Your task to perform on an android device: change your default location settings in chrome Image 0: 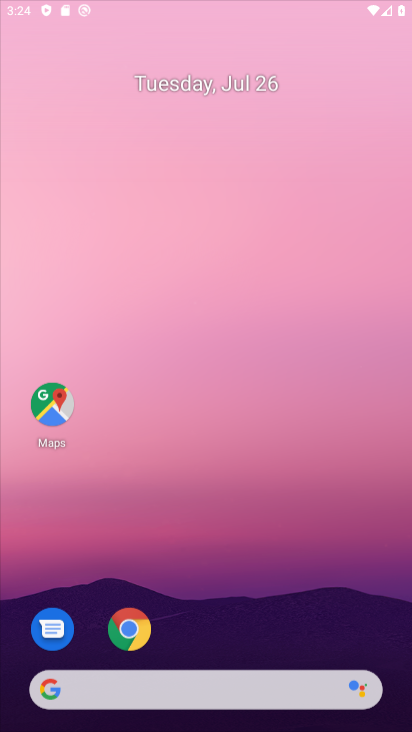
Step 0: press back button
Your task to perform on an android device: change your default location settings in chrome Image 1: 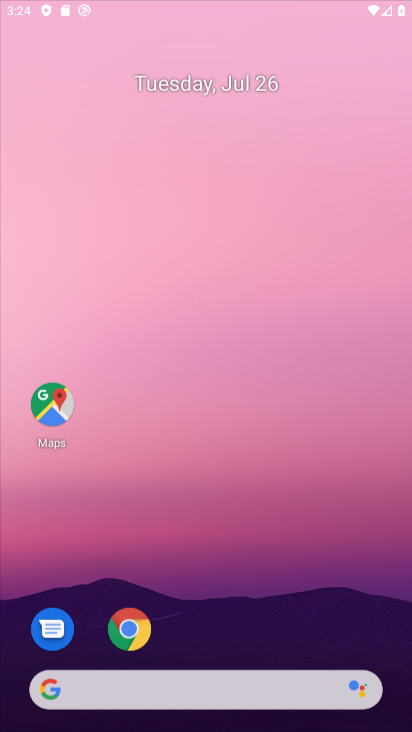
Step 1: drag from (259, 86) to (183, 129)
Your task to perform on an android device: change your default location settings in chrome Image 2: 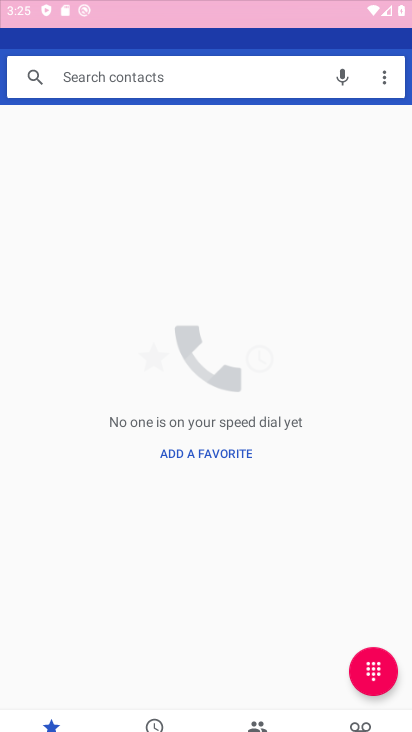
Step 2: drag from (214, 562) to (156, 22)
Your task to perform on an android device: change your default location settings in chrome Image 3: 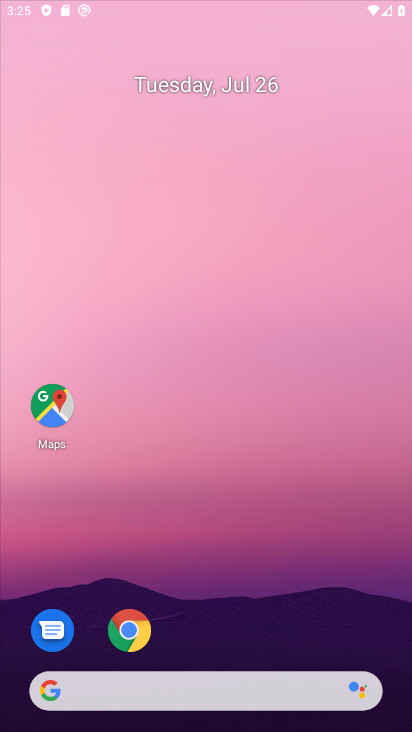
Step 3: drag from (174, 401) to (151, 131)
Your task to perform on an android device: change your default location settings in chrome Image 4: 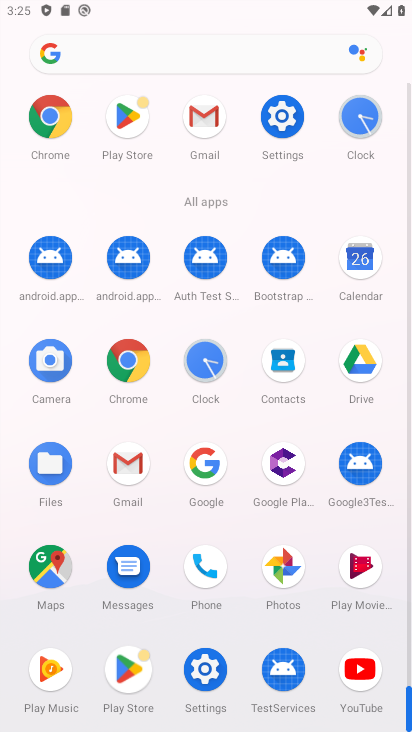
Step 4: click (125, 355)
Your task to perform on an android device: change your default location settings in chrome Image 5: 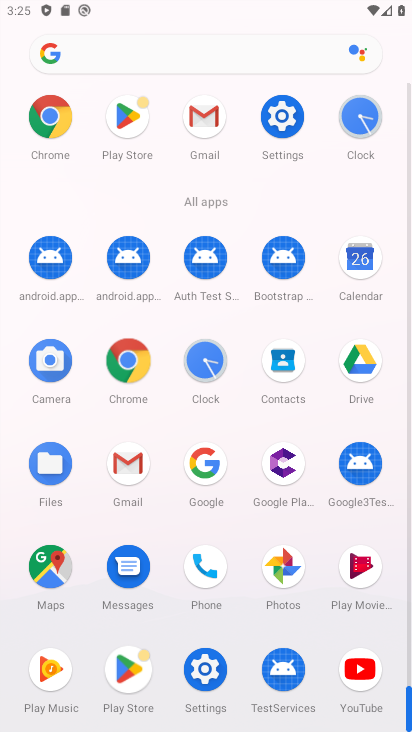
Step 5: click (125, 355)
Your task to perform on an android device: change your default location settings in chrome Image 6: 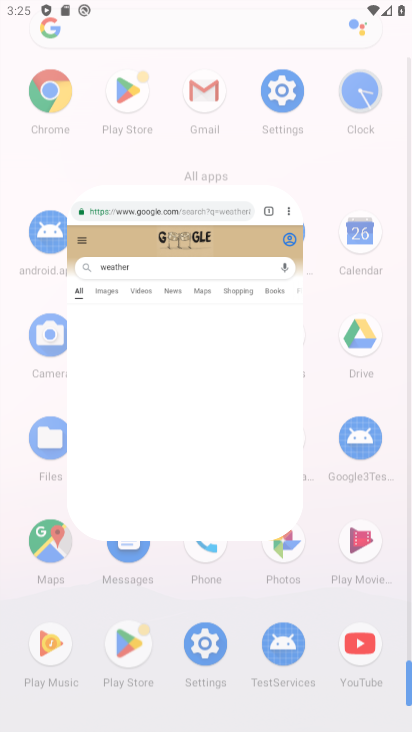
Step 6: click (125, 355)
Your task to perform on an android device: change your default location settings in chrome Image 7: 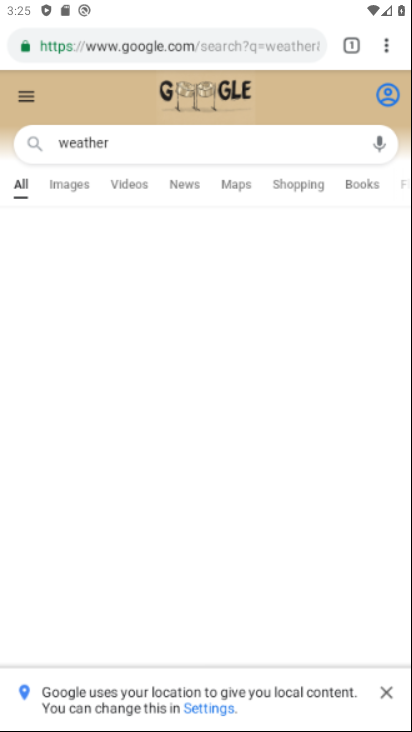
Step 7: click (127, 356)
Your task to perform on an android device: change your default location settings in chrome Image 8: 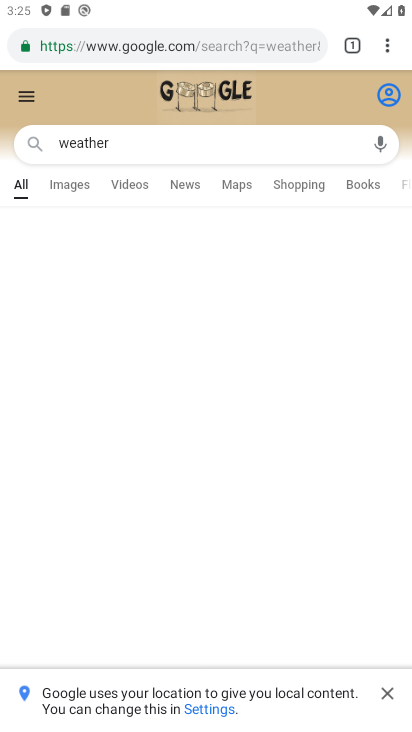
Step 8: click (386, 41)
Your task to perform on an android device: change your default location settings in chrome Image 9: 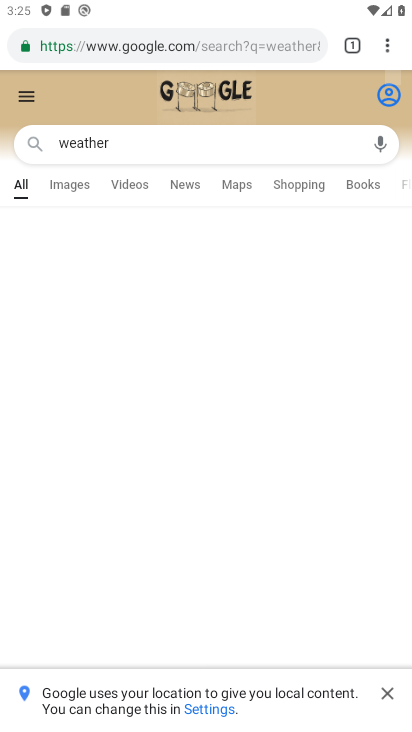
Step 9: click (386, 41)
Your task to perform on an android device: change your default location settings in chrome Image 10: 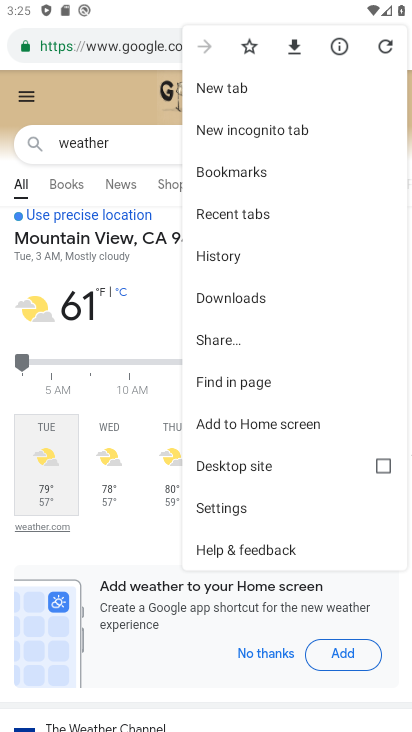
Step 10: click (217, 500)
Your task to perform on an android device: change your default location settings in chrome Image 11: 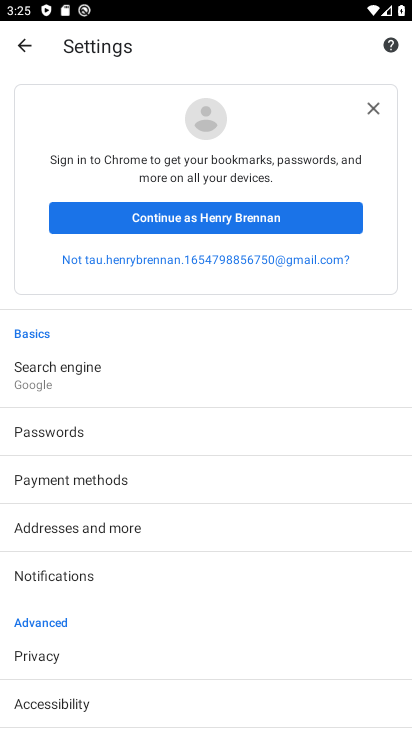
Step 11: drag from (57, 475) to (58, 160)
Your task to perform on an android device: change your default location settings in chrome Image 12: 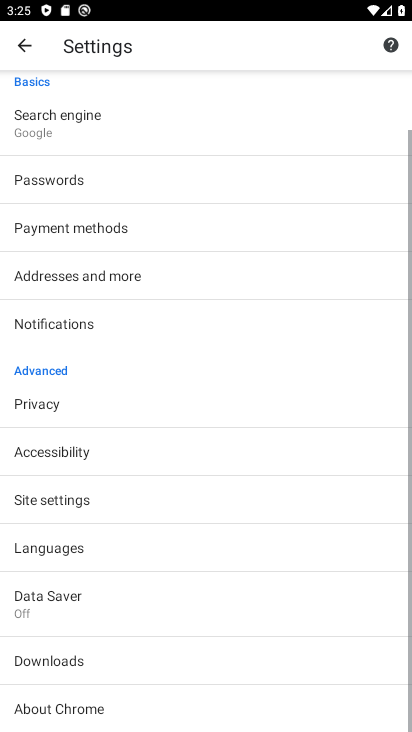
Step 12: drag from (112, 486) to (105, 267)
Your task to perform on an android device: change your default location settings in chrome Image 13: 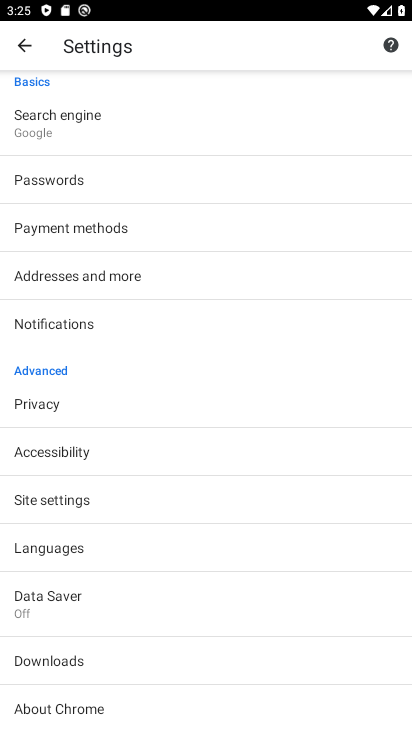
Step 13: click (65, 542)
Your task to perform on an android device: change your default location settings in chrome Image 14: 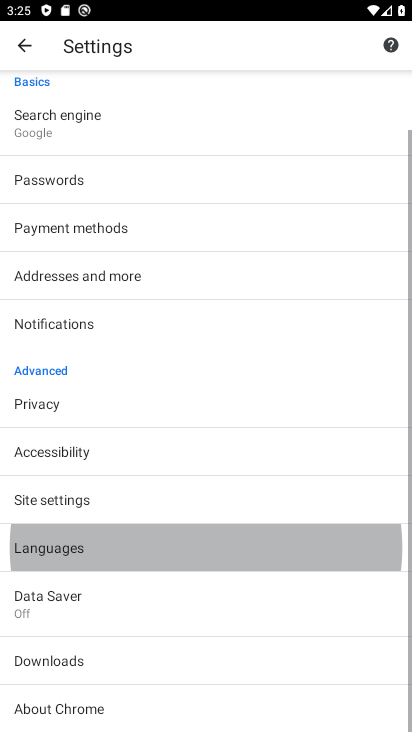
Step 14: click (65, 542)
Your task to perform on an android device: change your default location settings in chrome Image 15: 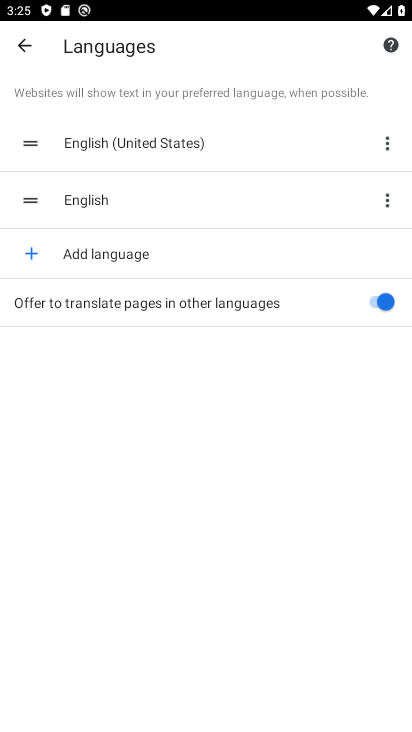
Step 15: click (379, 298)
Your task to perform on an android device: change your default location settings in chrome Image 16: 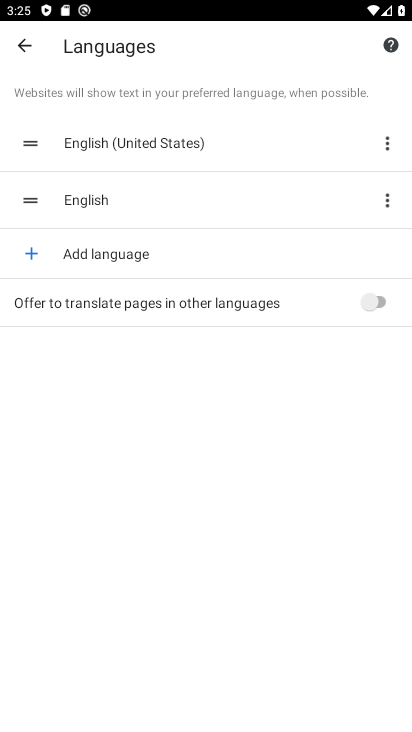
Step 16: click (379, 298)
Your task to perform on an android device: change your default location settings in chrome Image 17: 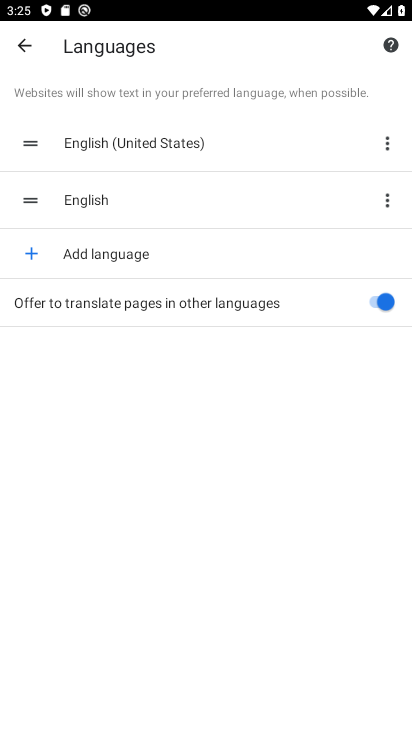
Step 17: click (23, 42)
Your task to perform on an android device: change your default location settings in chrome Image 18: 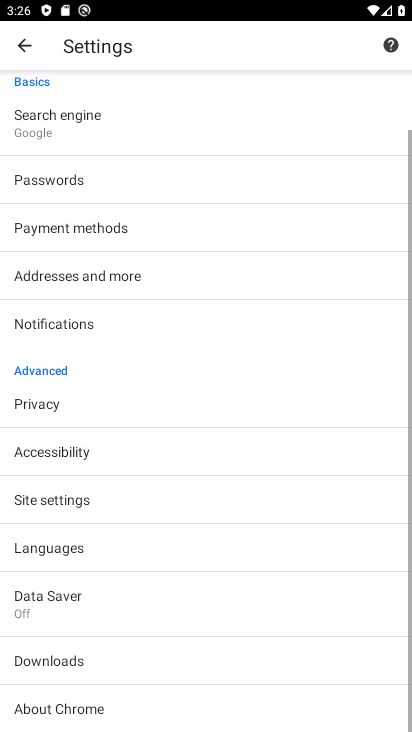
Step 18: click (51, 485)
Your task to perform on an android device: change your default location settings in chrome Image 19: 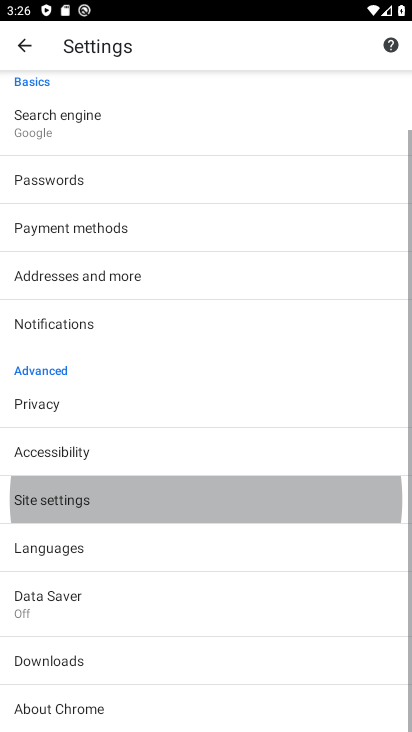
Step 19: click (46, 490)
Your task to perform on an android device: change your default location settings in chrome Image 20: 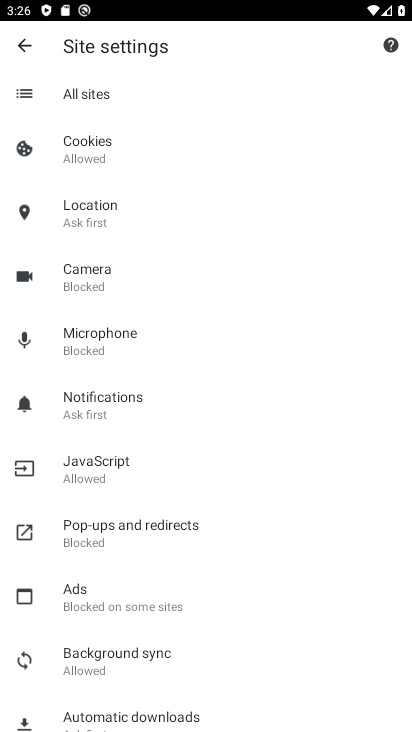
Step 20: click (75, 223)
Your task to perform on an android device: change your default location settings in chrome Image 21: 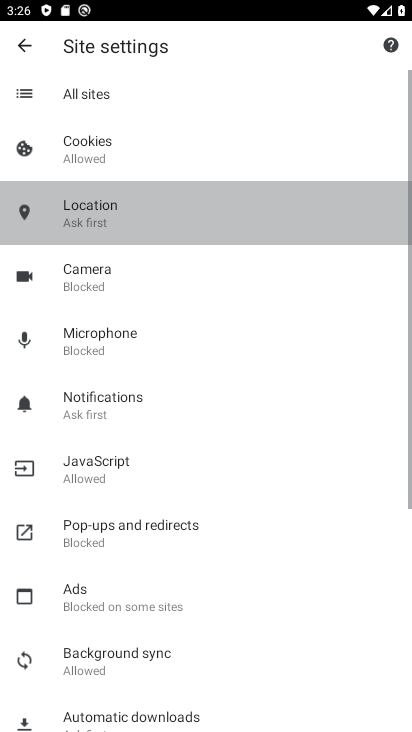
Step 21: click (83, 215)
Your task to perform on an android device: change your default location settings in chrome Image 22: 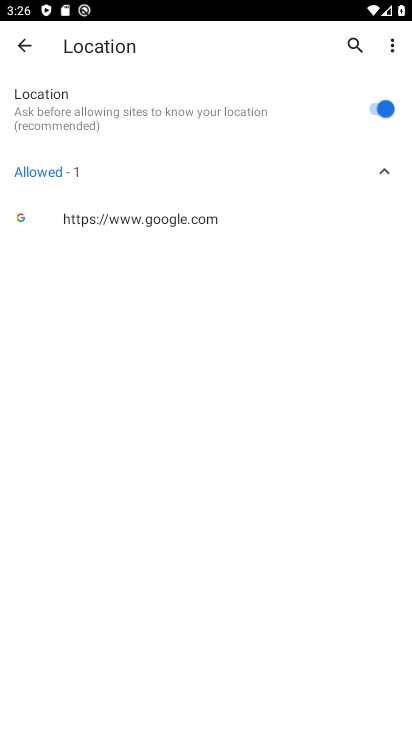
Step 22: click (383, 107)
Your task to perform on an android device: change your default location settings in chrome Image 23: 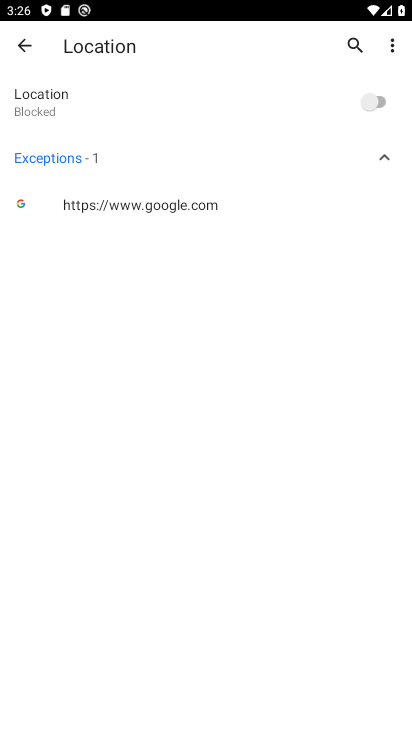
Step 23: task complete